Your task to perform on an android device: Search for pizza restaurants on Maps Image 0: 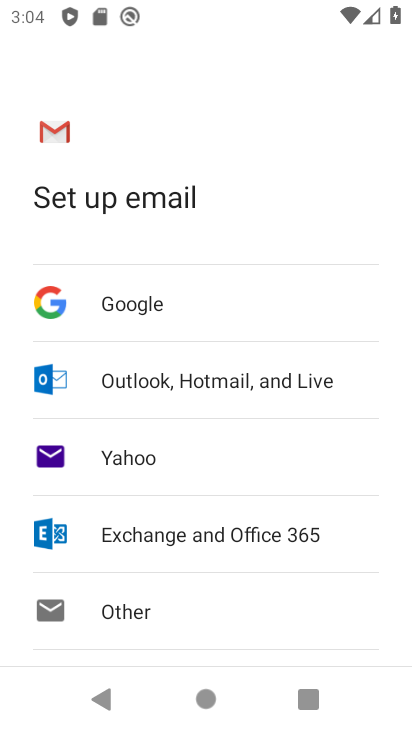
Step 0: press home button
Your task to perform on an android device: Search for pizza restaurants on Maps Image 1: 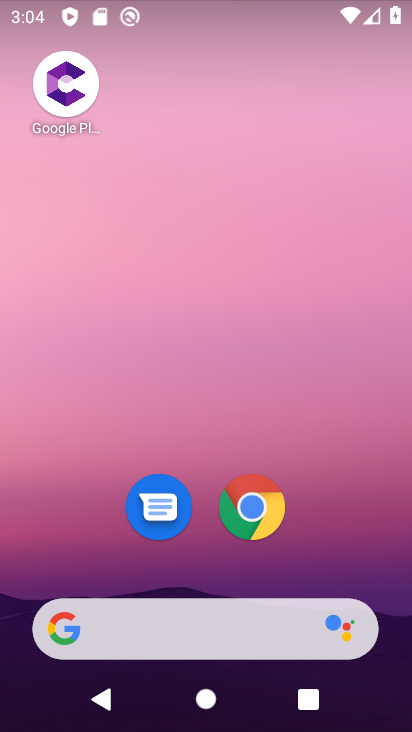
Step 1: drag from (152, 725) to (235, 12)
Your task to perform on an android device: Search for pizza restaurants on Maps Image 2: 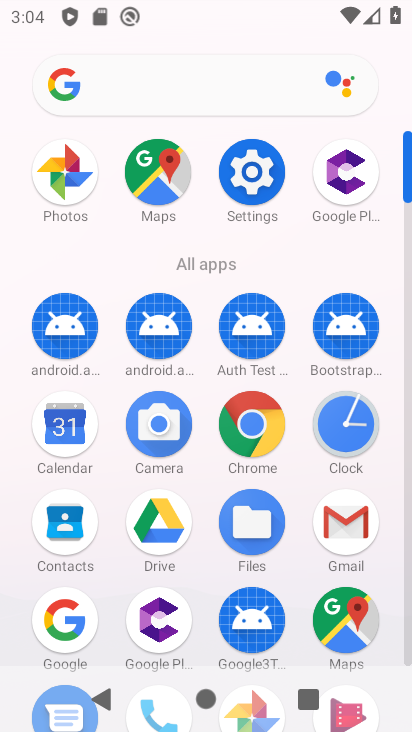
Step 2: click (144, 185)
Your task to perform on an android device: Search for pizza restaurants on Maps Image 3: 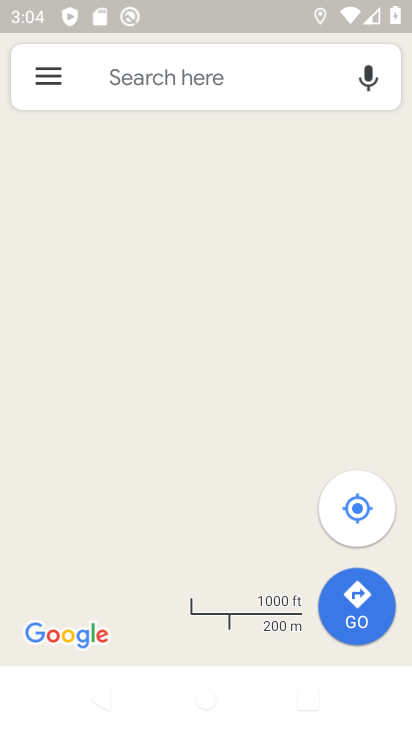
Step 3: click (218, 92)
Your task to perform on an android device: Search for pizza restaurants on Maps Image 4: 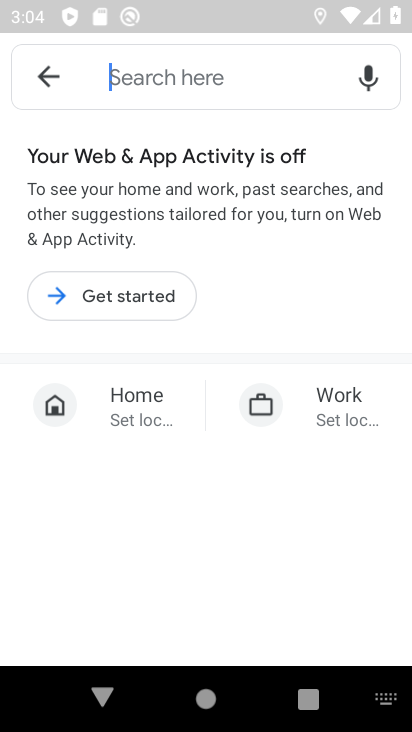
Step 4: click (195, 93)
Your task to perform on an android device: Search for pizza restaurants on Maps Image 5: 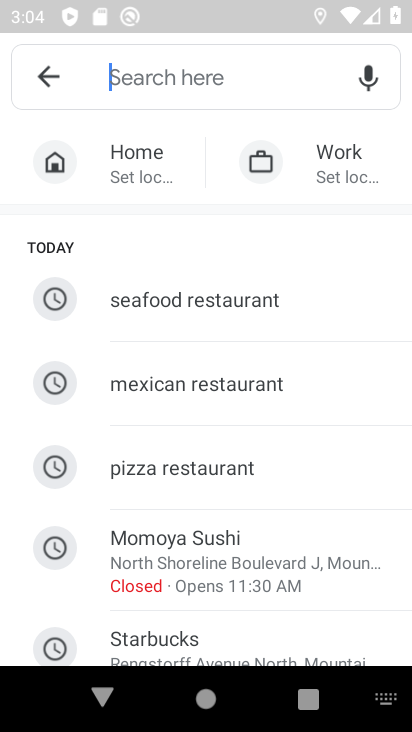
Step 5: type "pizza "
Your task to perform on an android device: Search for pizza restaurants on Maps Image 6: 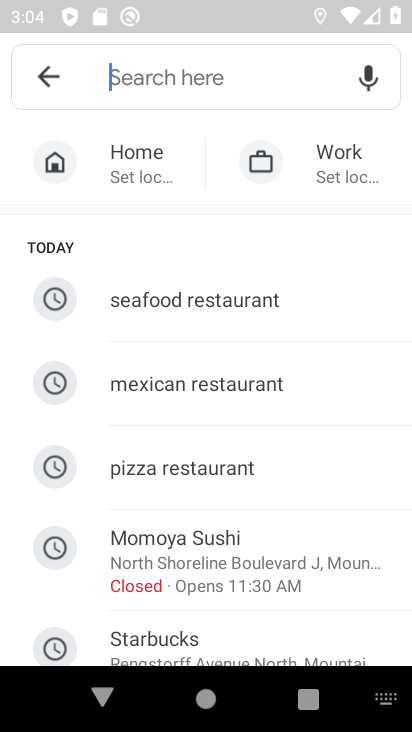
Step 6: click (278, 481)
Your task to perform on an android device: Search for pizza restaurants on Maps Image 7: 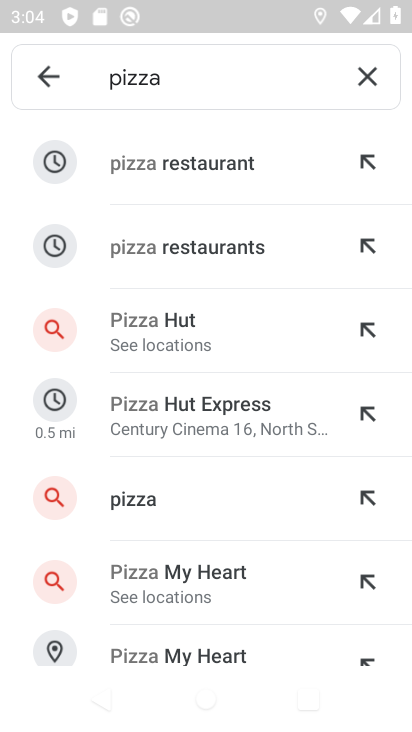
Step 7: click (198, 252)
Your task to perform on an android device: Search for pizza restaurants on Maps Image 8: 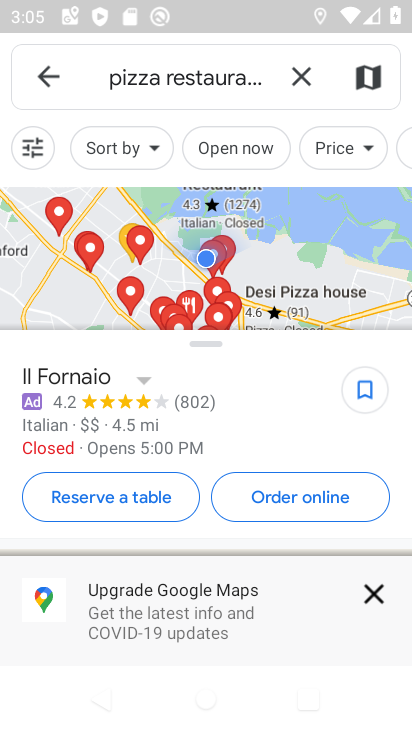
Step 8: task complete